Your task to perform on an android device: turn off smart reply in the gmail app Image 0: 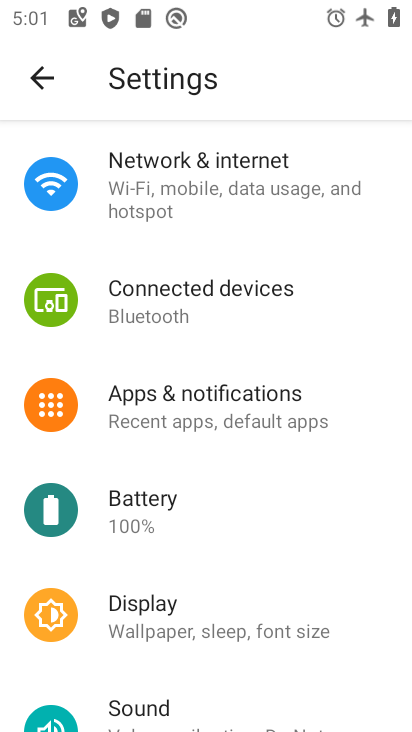
Step 0: press back button
Your task to perform on an android device: turn off smart reply in the gmail app Image 1: 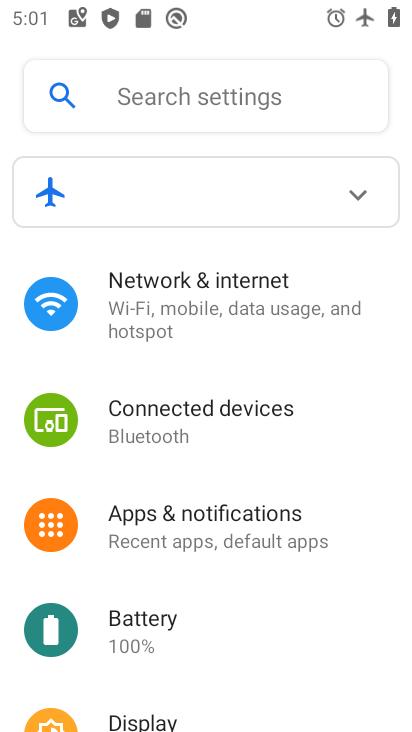
Step 1: press back button
Your task to perform on an android device: turn off smart reply in the gmail app Image 2: 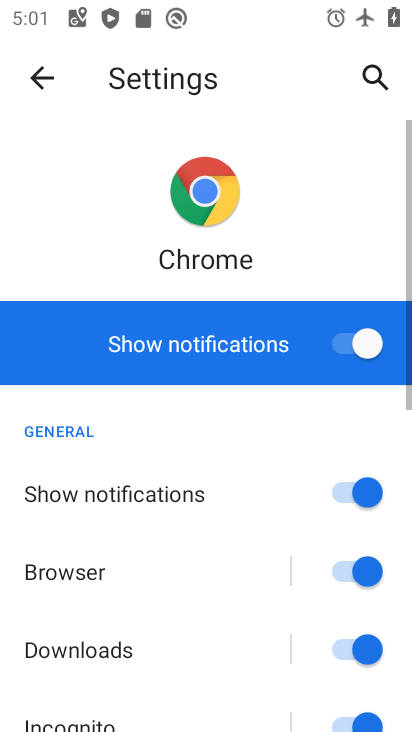
Step 2: press back button
Your task to perform on an android device: turn off smart reply in the gmail app Image 3: 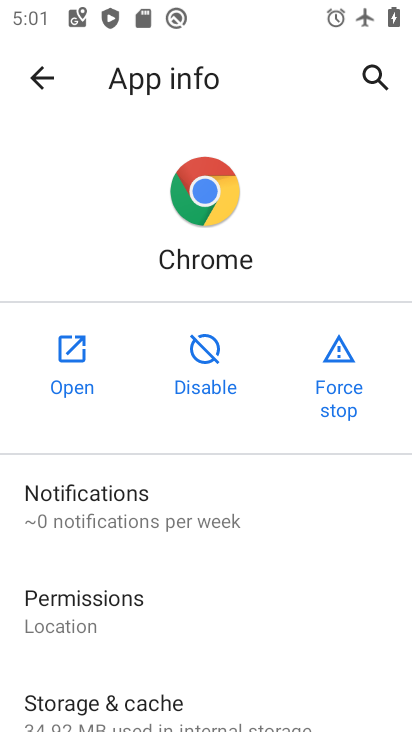
Step 3: press back button
Your task to perform on an android device: turn off smart reply in the gmail app Image 4: 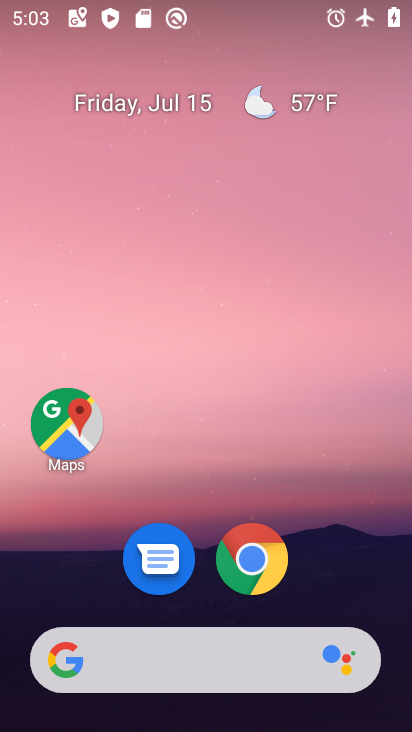
Step 4: drag from (86, 601) to (215, 10)
Your task to perform on an android device: turn off smart reply in the gmail app Image 5: 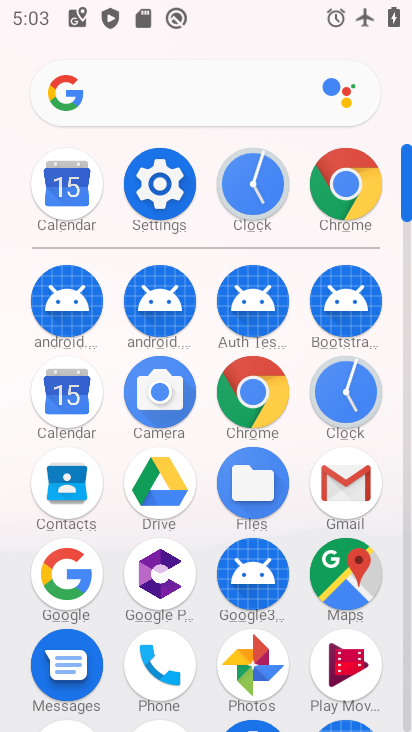
Step 5: click (332, 485)
Your task to perform on an android device: turn off smart reply in the gmail app Image 6: 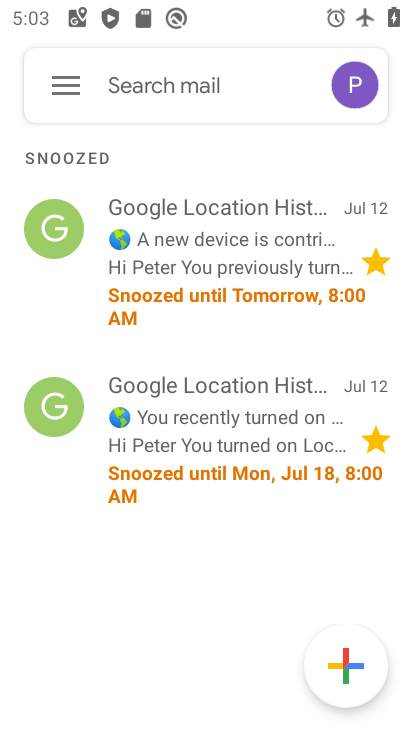
Step 6: click (87, 83)
Your task to perform on an android device: turn off smart reply in the gmail app Image 7: 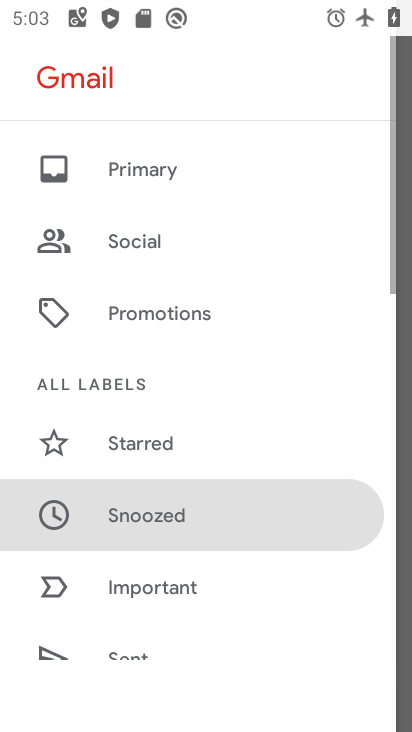
Step 7: drag from (145, 625) to (279, 45)
Your task to perform on an android device: turn off smart reply in the gmail app Image 8: 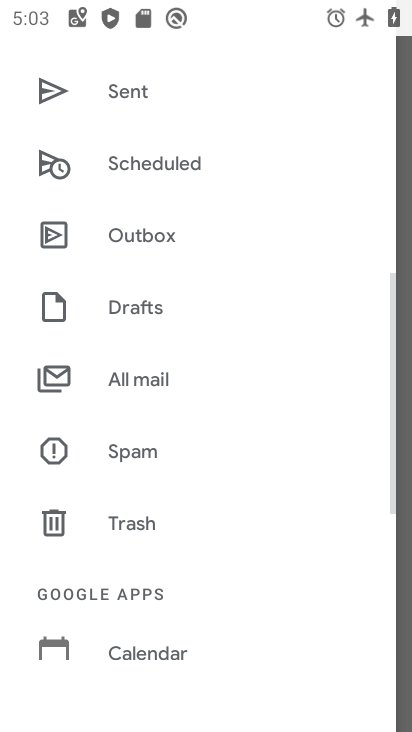
Step 8: drag from (147, 579) to (254, 54)
Your task to perform on an android device: turn off smart reply in the gmail app Image 9: 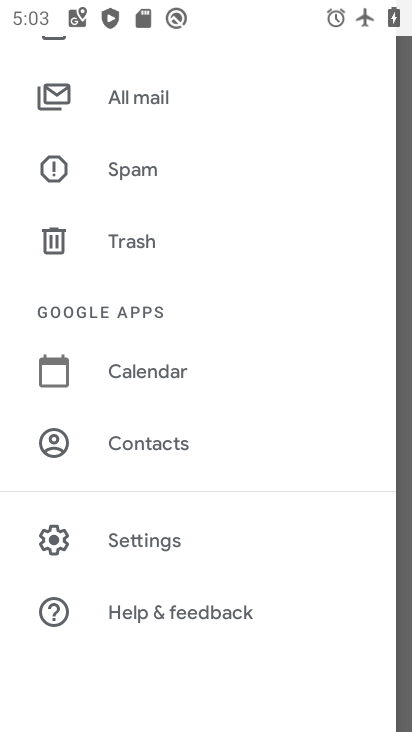
Step 9: click (136, 543)
Your task to perform on an android device: turn off smart reply in the gmail app Image 10: 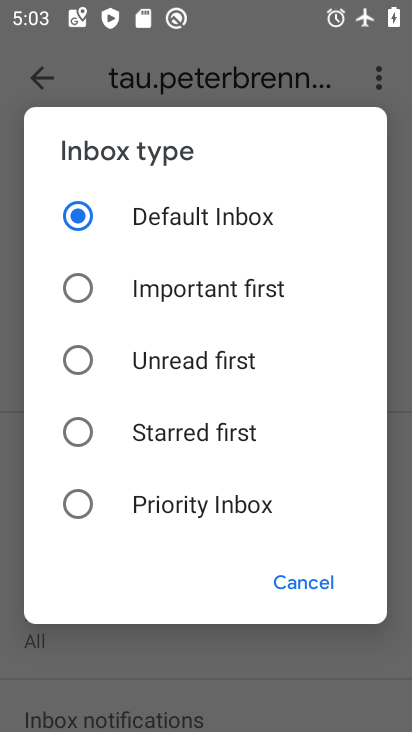
Step 10: click (281, 571)
Your task to perform on an android device: turn off smart reply in the gmail app Image 11: 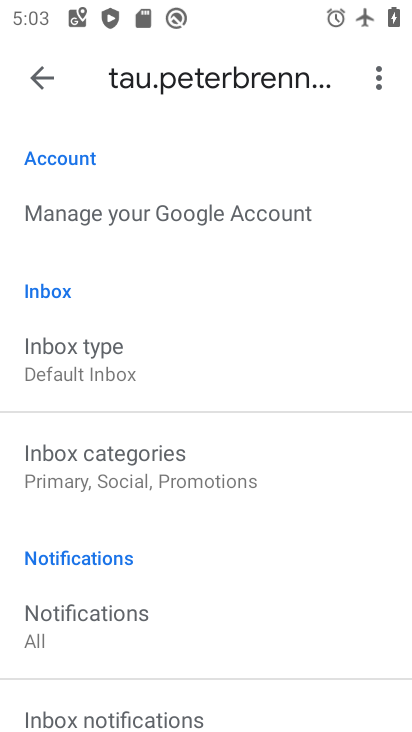
Step 11: drag from (202, 643) to (285, 108)
Your task to perform on an android device: turn off smart reply in the gmail app Image 12: 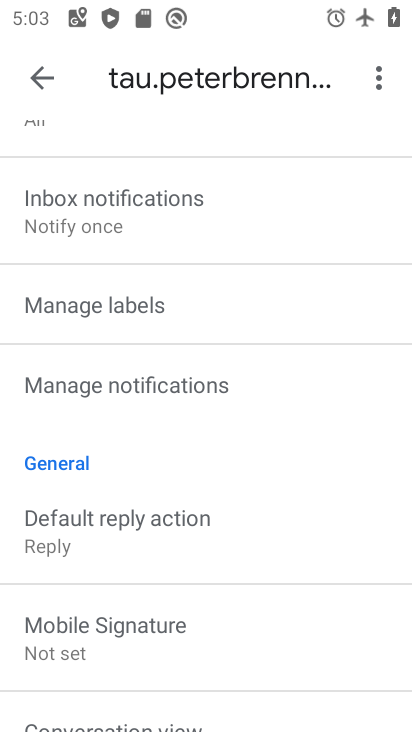
Step 12: drag from (156, 662) to (222, 137)
Your task to perform on an android device: turn off smart reply in the gmail app Image 13: 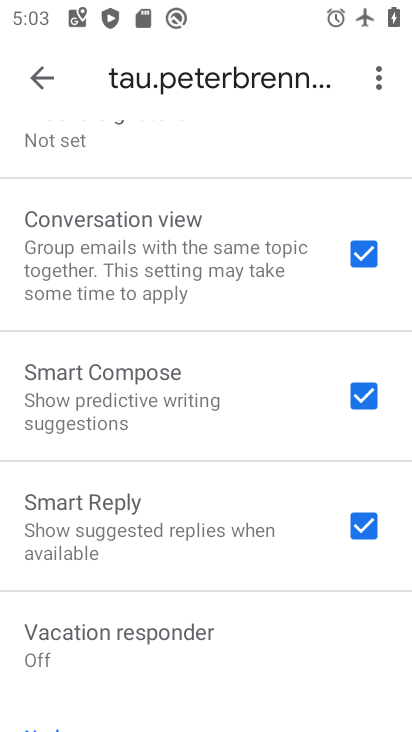
Step 13: click (360, 524)
Your task to perform on an android device: turn off smart reply in the gmail app Image 14: 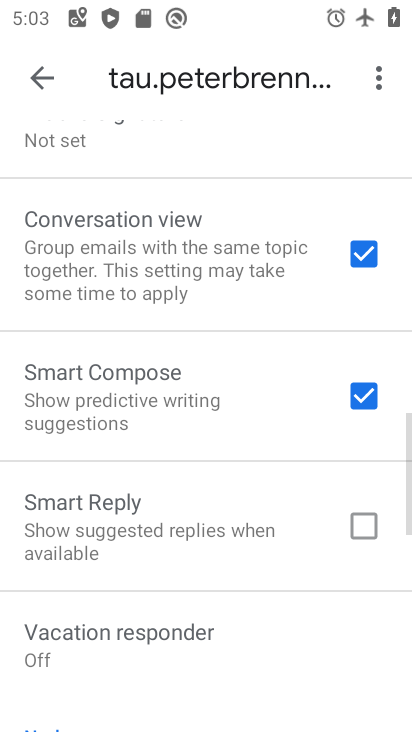
Step 14: task complete